Your task to perform on an android device: open sync settings in chrome Image 0: 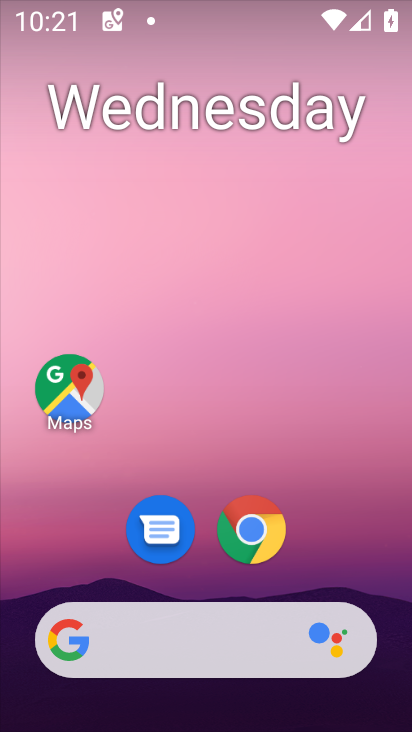
Step 0: click (255, 533)
Your task to perform on an android device: open sync settings in chrome Image 1: 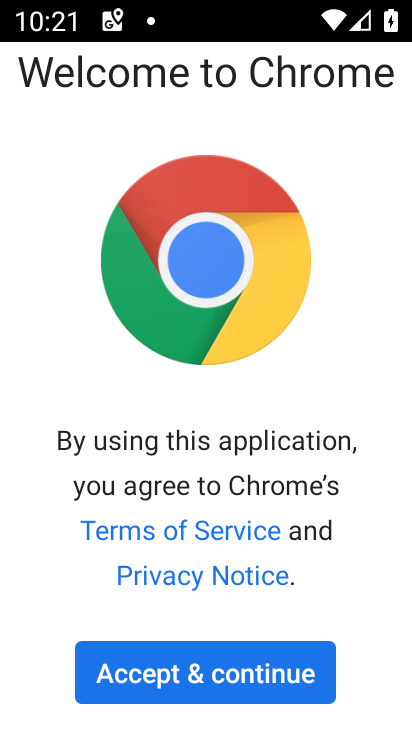
Step 1: click (202, 672)
Your task to perform on an android device: open sync settings in chrome Image 2: 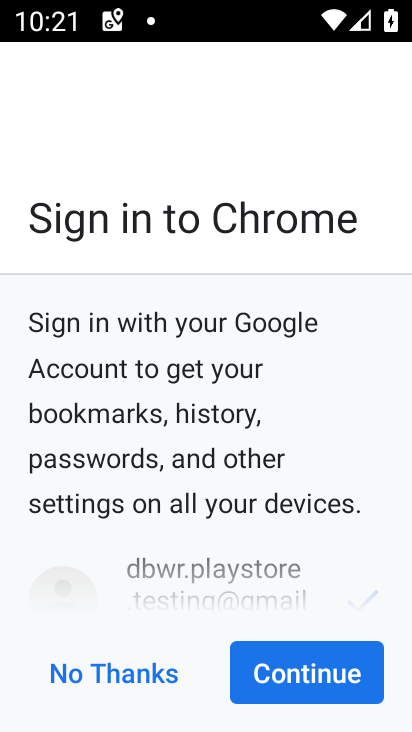
Step 2: click (316, 670)
Your task to perform on an android device: open sync settings in chrome Image 3: 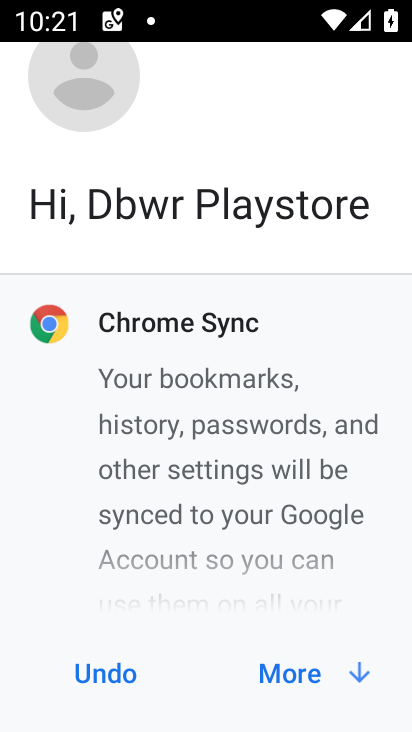
Step 3: click (316, 670)
Your task to perform on an android device: open sync settings in chrome Image 4: 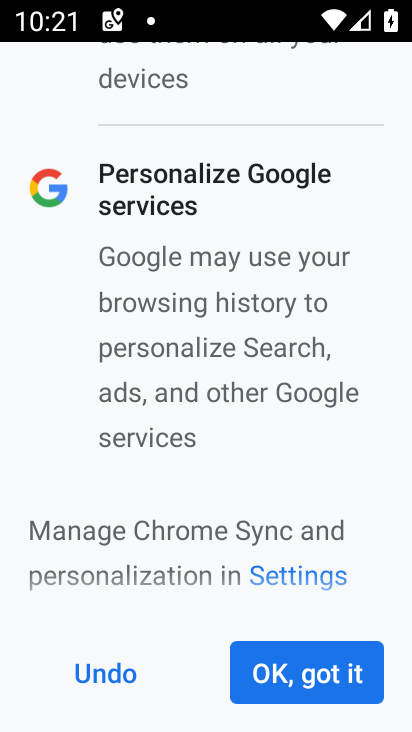
Step 4: click (316, 670)
Your task to perform on an android device: open sync settings in chrome Image 5: 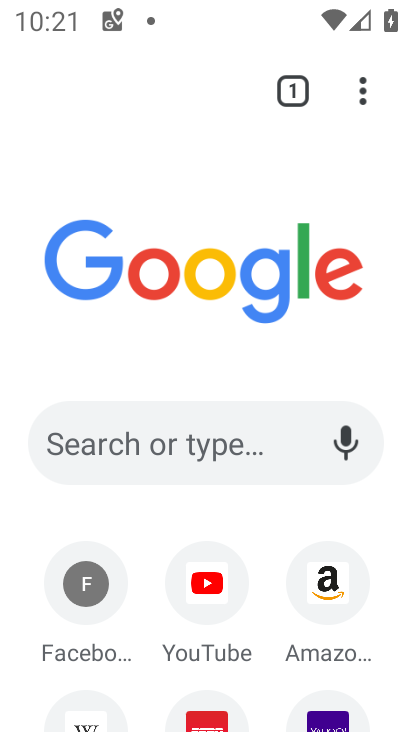
Step 5: click (365, 97)
Your task to perform on an android device: open sync settings in chrome Image 6: 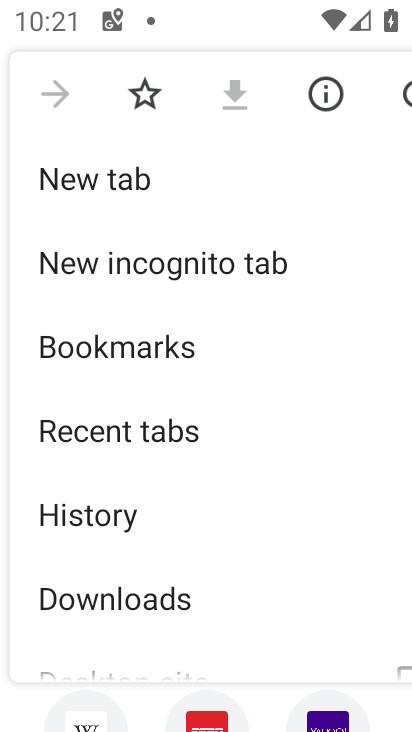
Step 6: drag from (203, 625) to (198, 323)
Your task to perform on an android device: open sync settings in chrome Image 7: 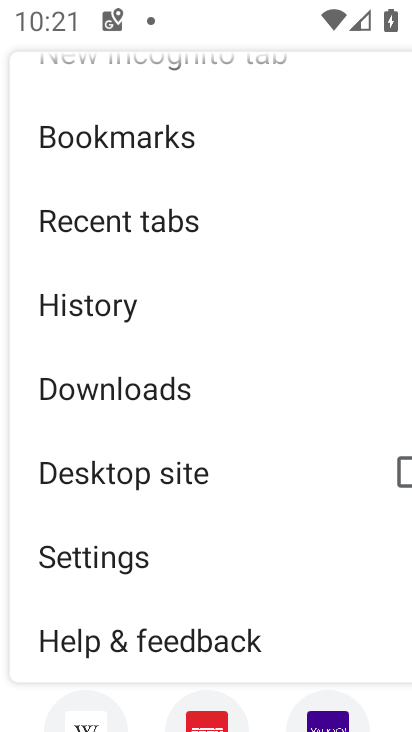
Step 7: click (111, 555)
Your task to perform on an android device: open sync settings in chrome Image 8: 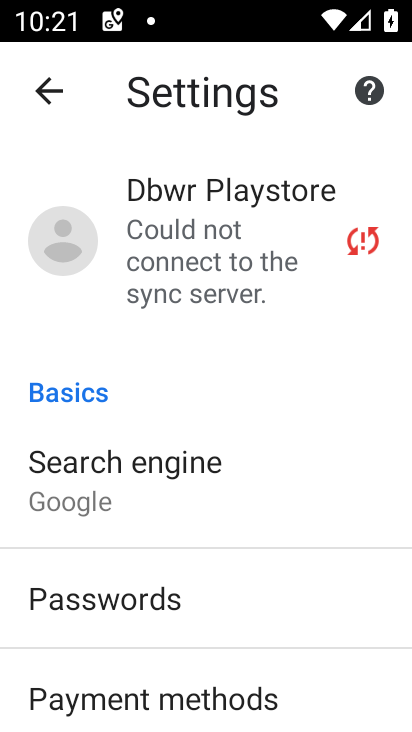
Step 8: click (187, 262)
Your task to perform on an android device: open sync settings in chrome Image 9: 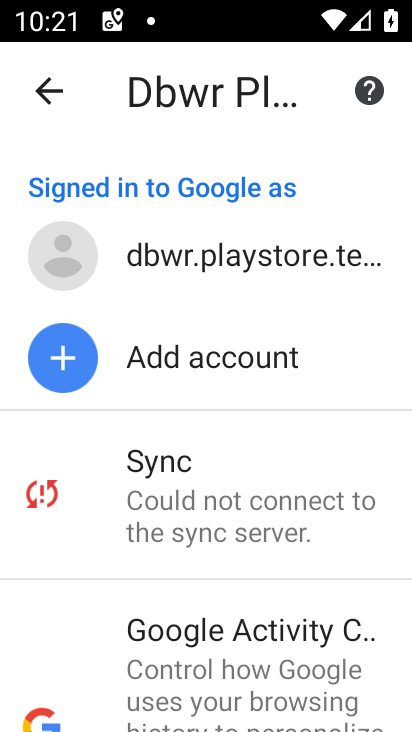
Step 9: click (172, 485)
Your task to perform on an android device: open sync settings in chrome Image 10: 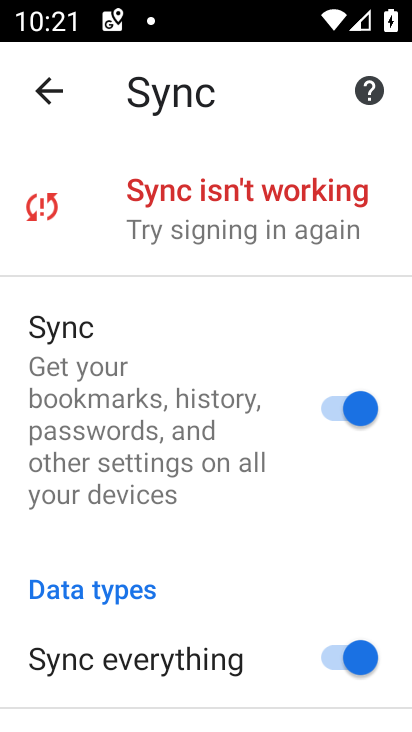
Step 10: task complete